Your task to perform on an android device: Search for flights from Helsinki to Tokyo Image 0: 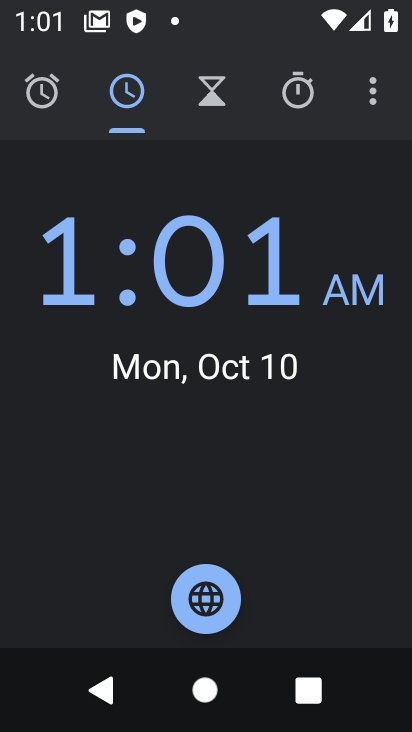
Step 0: press home button
Your task to perform on an android device: Search for flights from Helsinki to Tokyo Image 1: 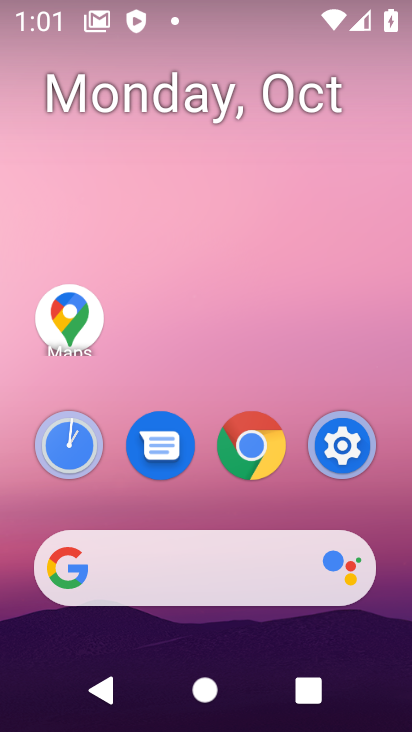
Step 1: click (153, 577)
Your task to perform on an android device: Search for flights from Helsinki to Tokyo Image 2: 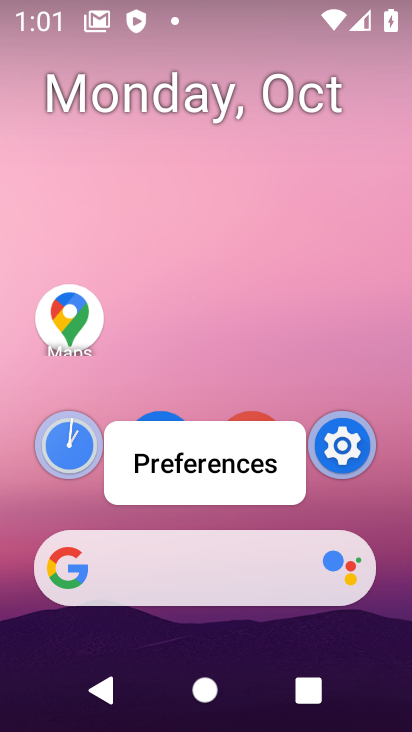
Step 2: click (153, 577)
Your task to perform on an android device: Search for flights from Helsinki to Tokyo Image 3: 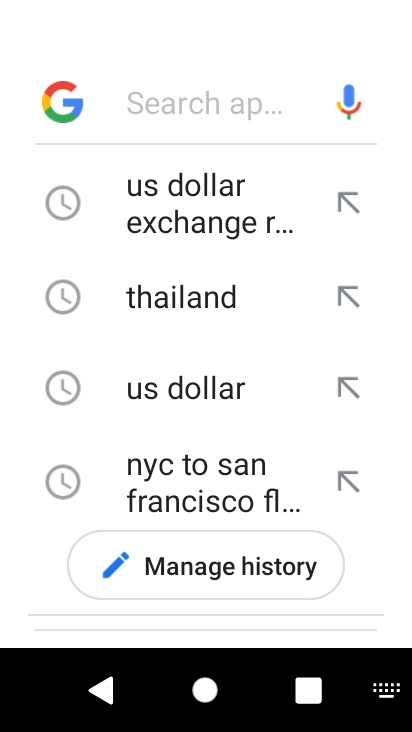
Step 3: type "flights from Helsinki to Tokyo"
Your task to perform on an android device: Search for flights from Helsinki to Tokyo Image 4: 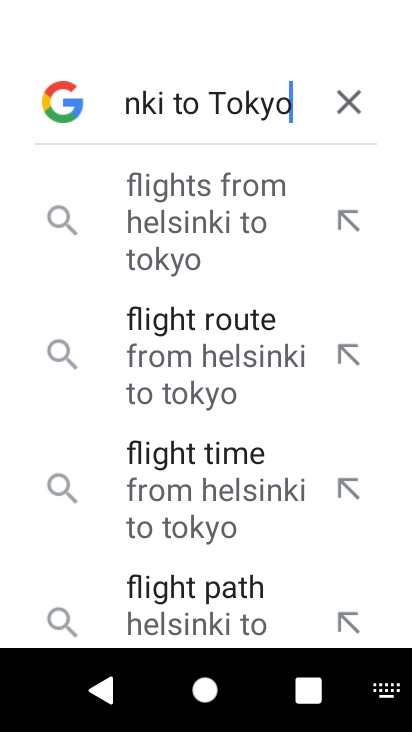
Step 4: type ""
Your task to perform on an android device: Search for flights from Helsinki to Tokyo Image 5: 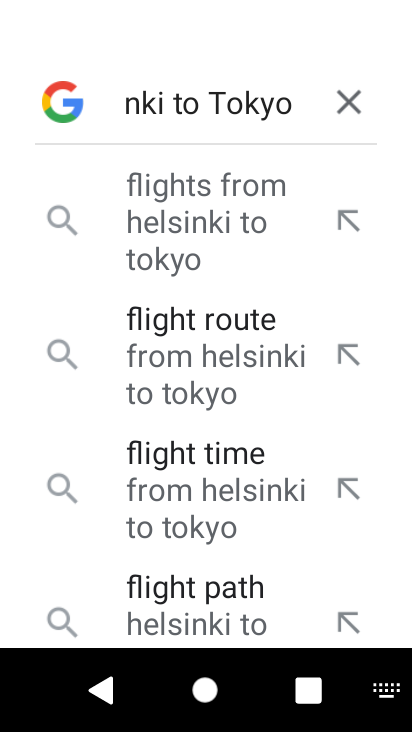
Step 5: click (170, 207)
Your task to perform on an android device: Search for flights from Helsinki to Tokyo Image 6: 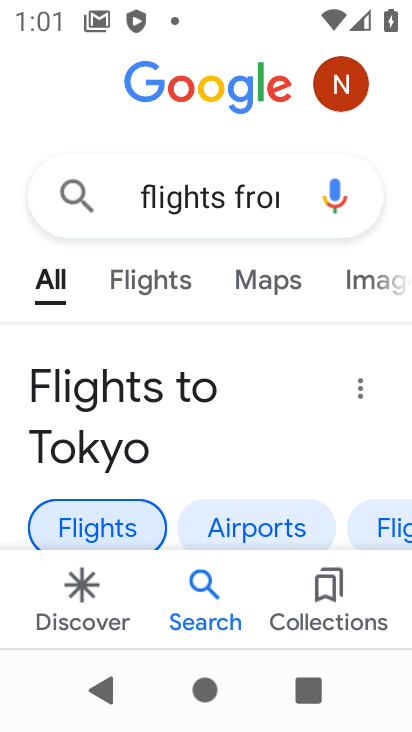
Step 6: task complete